Your task to perform on an android device: Search for usb-c on target.com, select the first entry, and add it to the cart. Image 0: 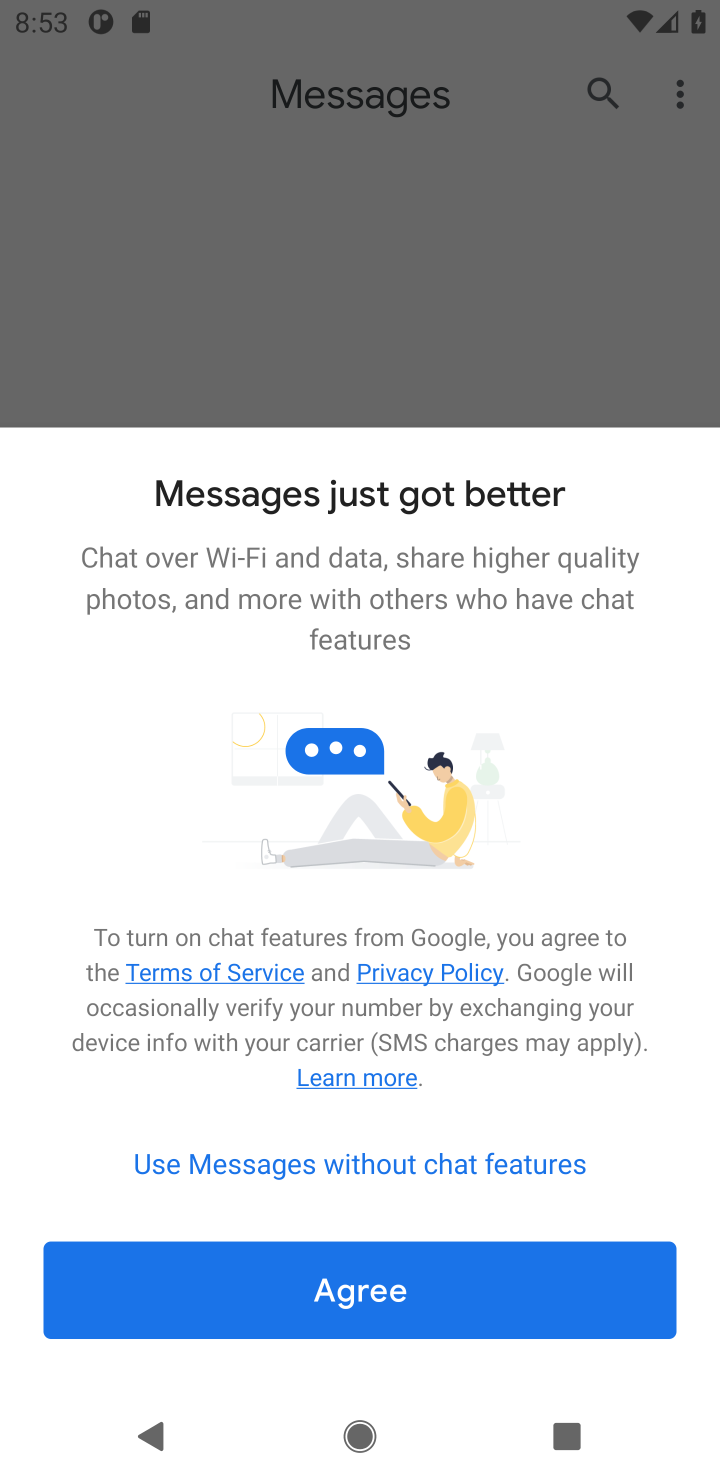
Step 0: press home button
Your task to perform on an android device: Search for usb-c on target.com, select the first entry, and add it to the cart. Image 1: 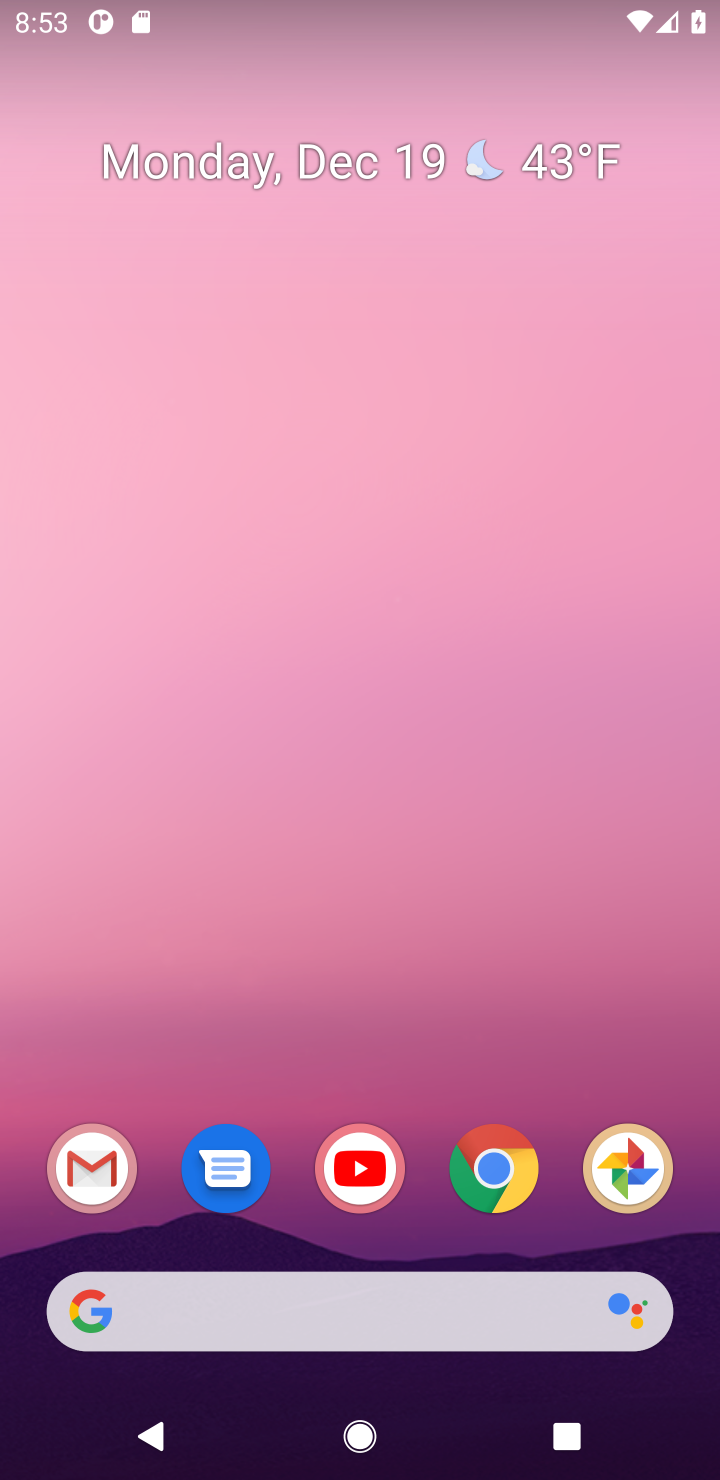
Step 1: click (506, 1197)
Your task to perform on an android device: Search for usb-c on target.com, select the first entry, and add it to the cart. Image 2: 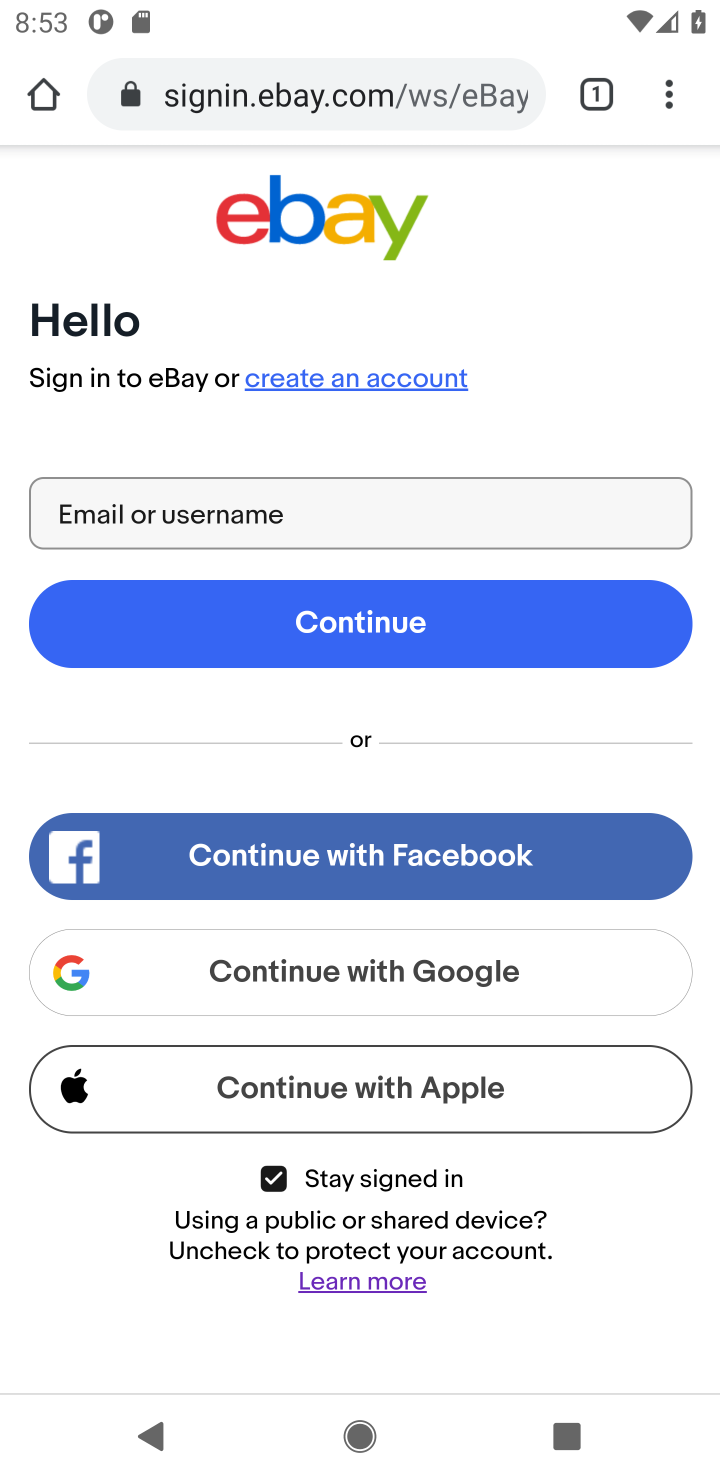
Step 2: click (286, 85)
Your task to perform on an android device: Search for usb-c on target.com, select the first entry, and add it to the cart. Image 3: 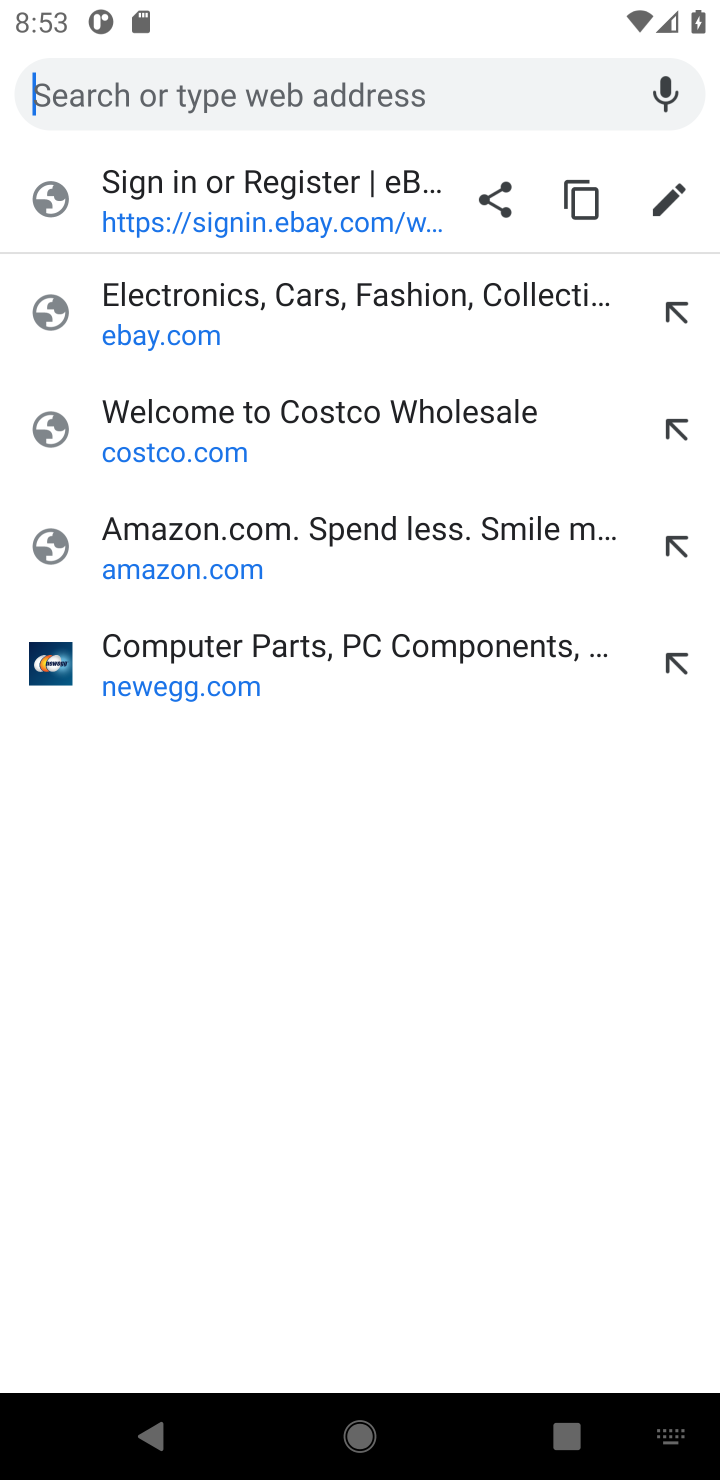
Step 3: type "target.com"
Your task to perform on an android device: Search for usb-c on target.com, select the first entry, and add it to the cart. Image 4: 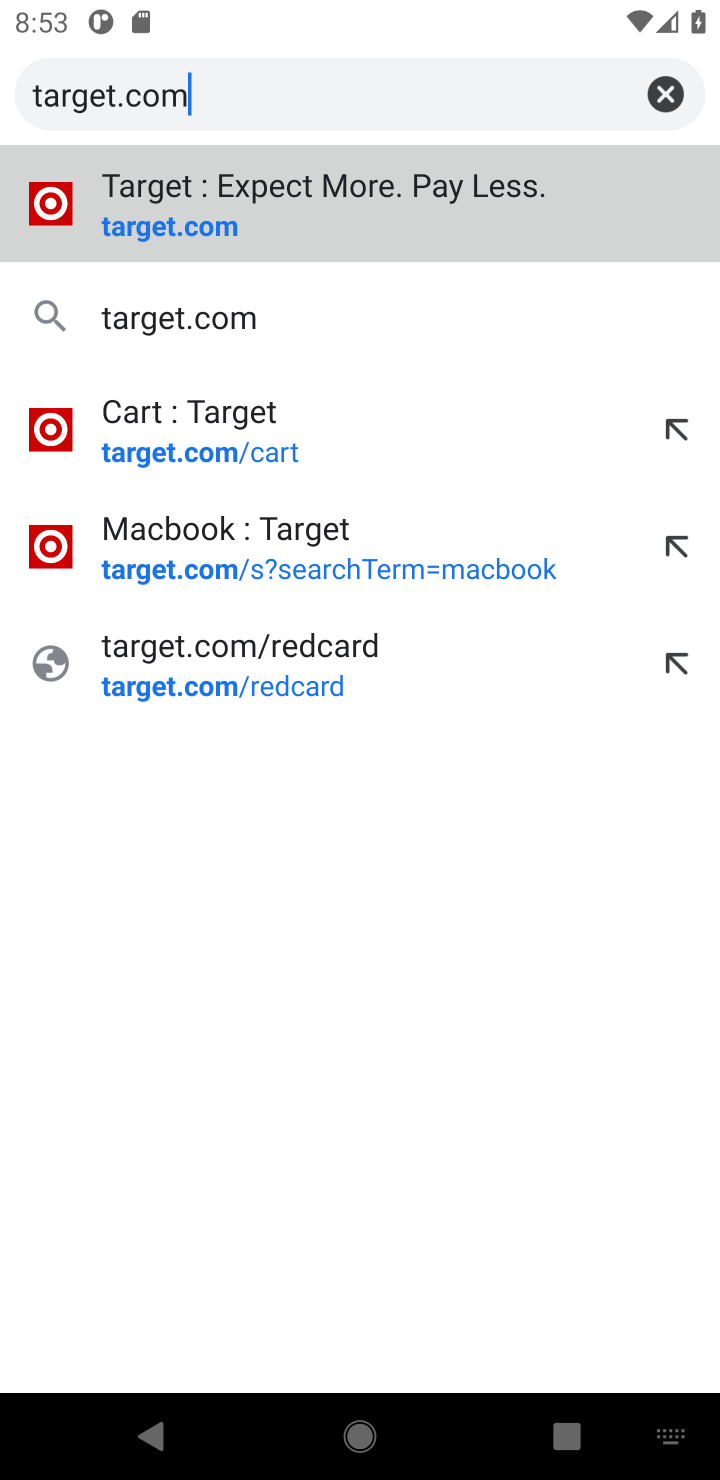
Step 4: click (165, 233)
Your task to perform on an android device: Search for usb-c on target.com, select the first entry, and add it to the cart. Image 5: 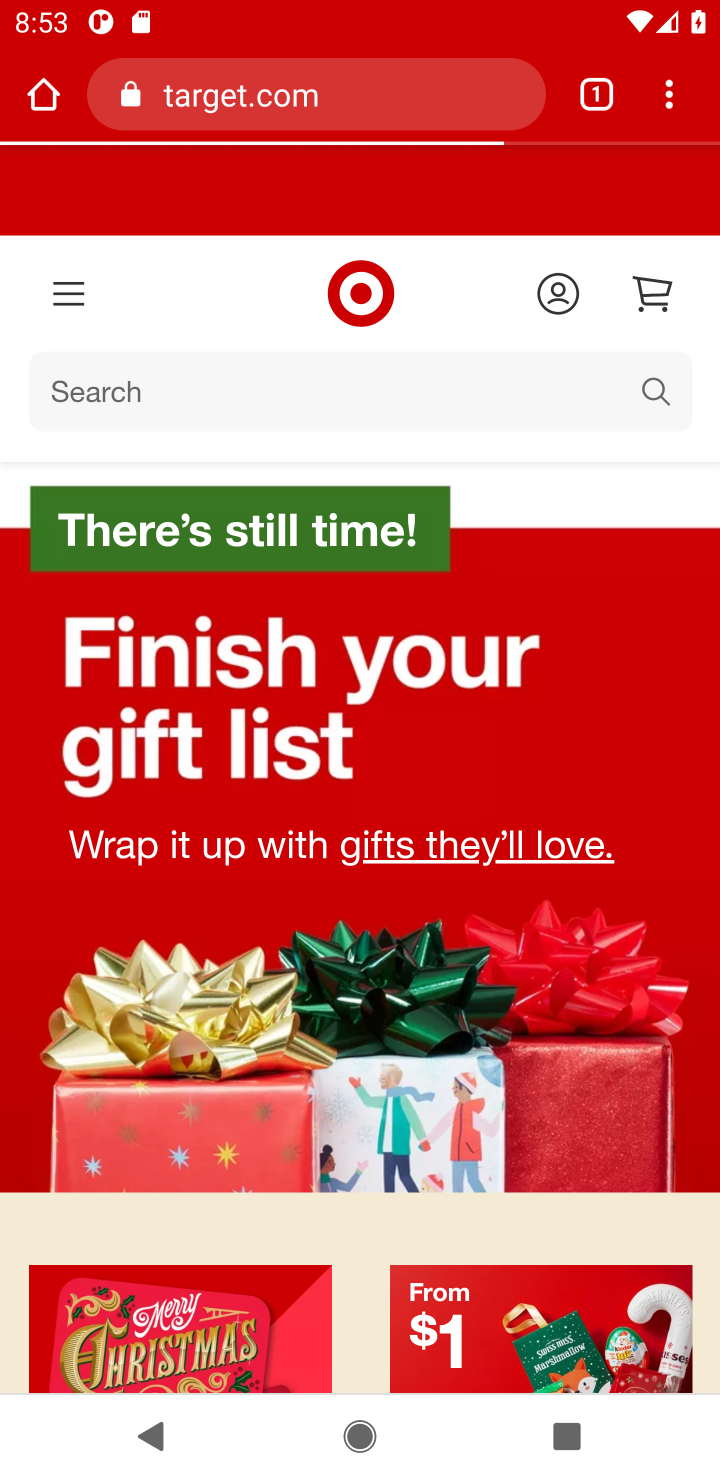
Step 5: click (110, 376)
Your task to perform on an android device: Search for usb-c on target.com, select the first entry, and add it to the cart. Image 6: 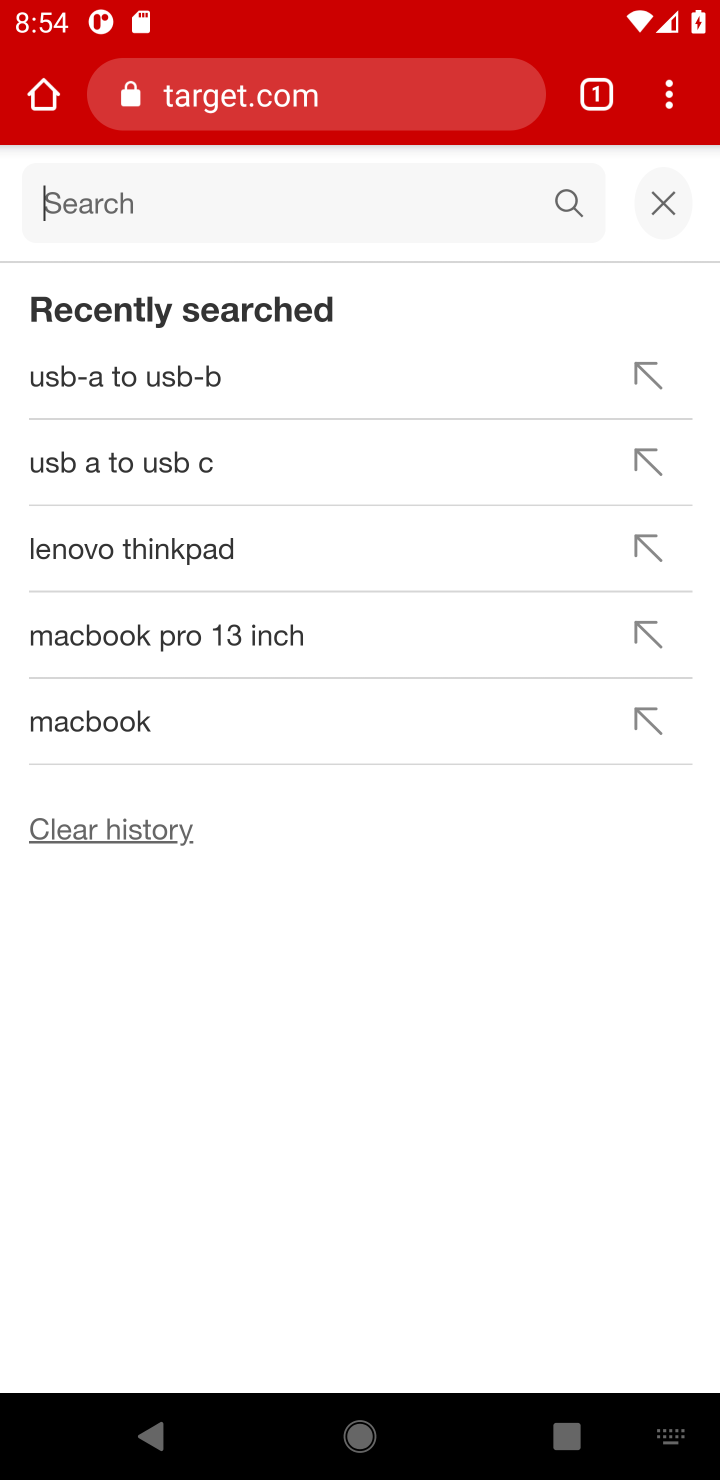
Step 6: type "usb-c"
Your task to perform on an android device: Search for usb-c on target.com, select the first entry, and add it to the cart. Image 7: 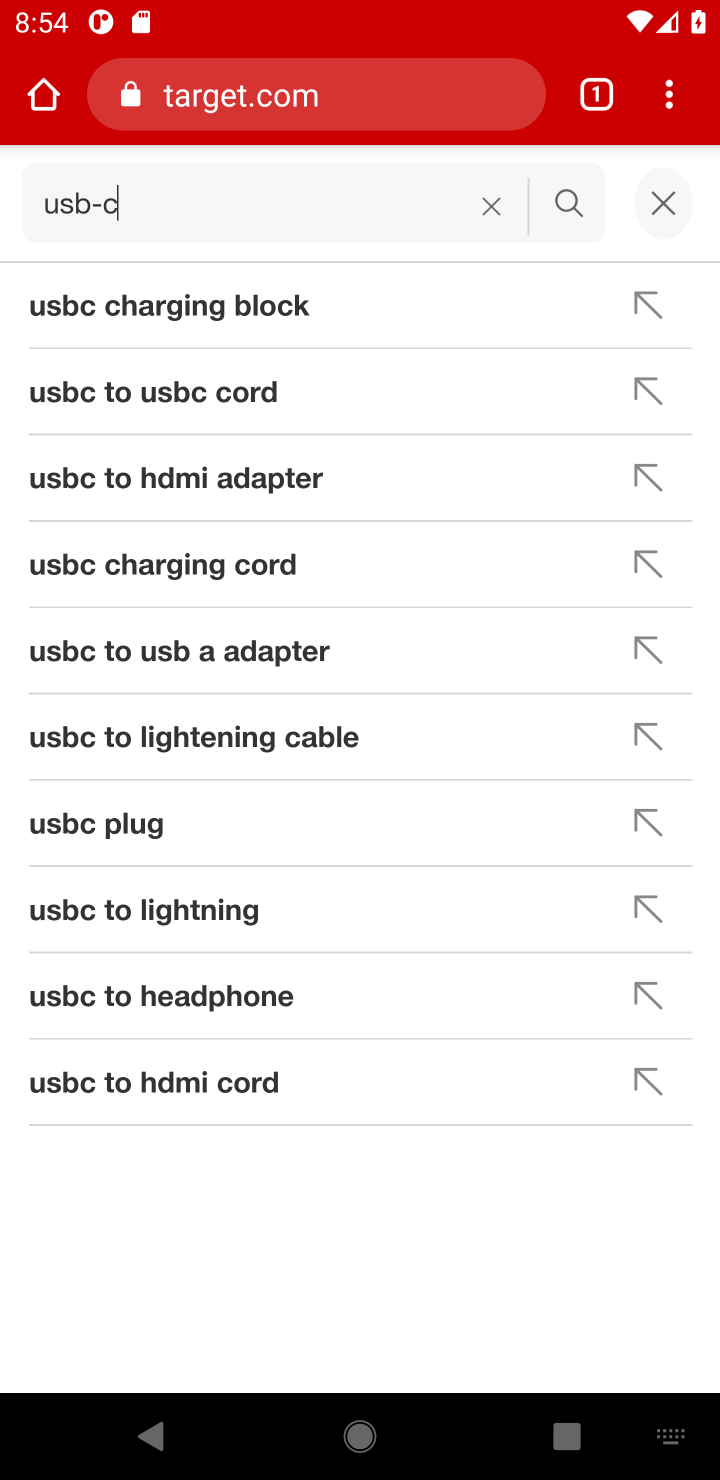
Step 7: click (565, 199)
Your task to perform on an android device: Search for usb-c on target.com, select the first entry, and add it to the cart. Image 8: 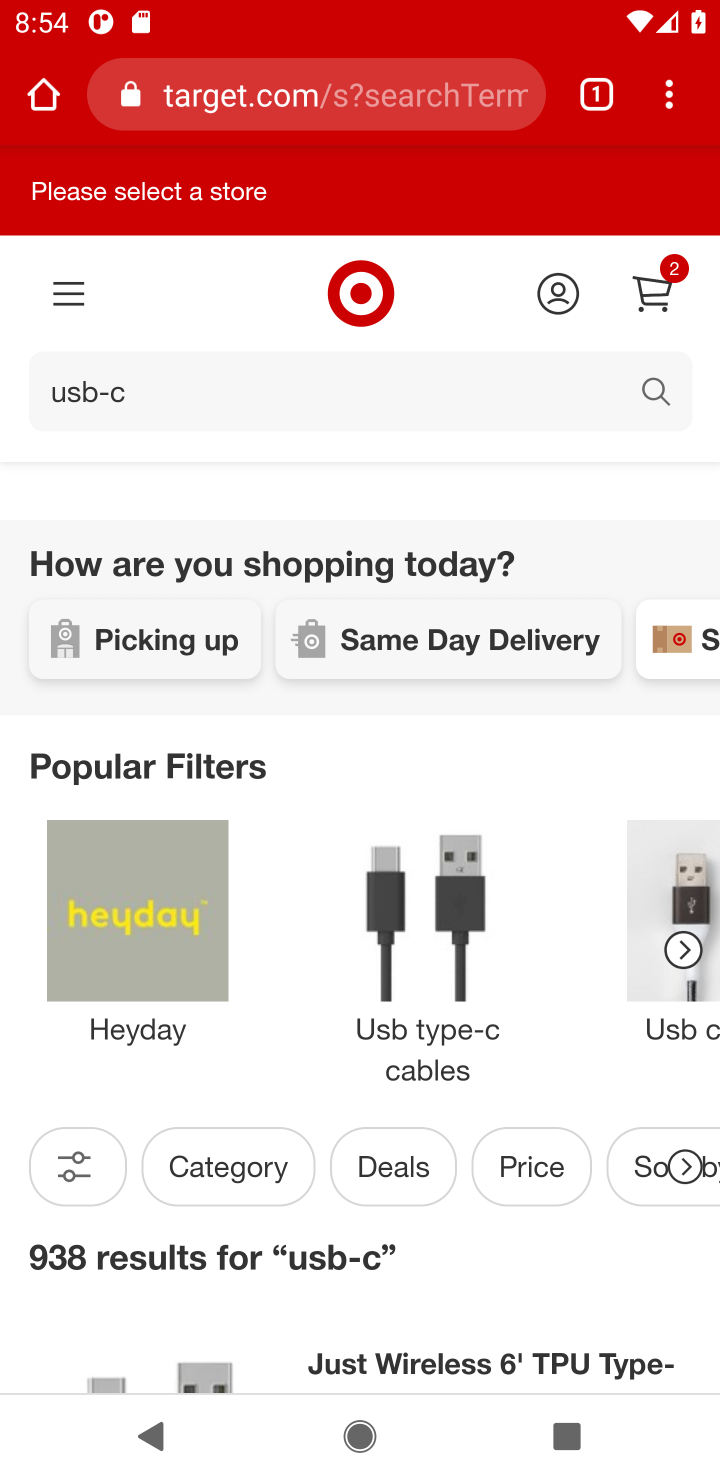
Step 8: task complete